Your task to perform on an android device: Open Chrome and go to settings Image 0: 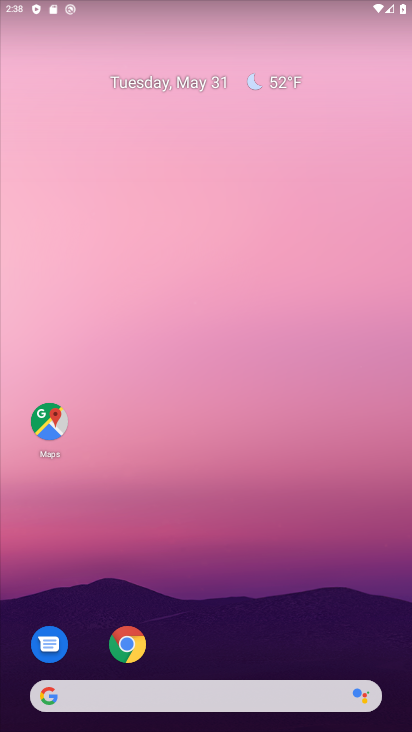
Step 0: click (135, 639)
Your task to perform on an android device: Open Chrome and go to settings Image 1: 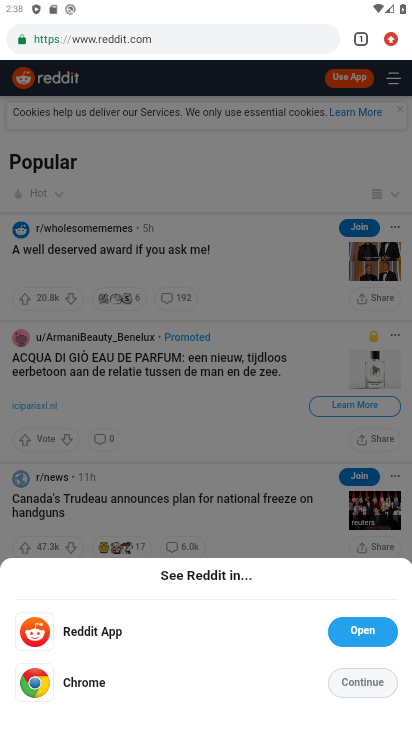
Step 1: click (401, 75)
Your task to perform on an android device: Open Chrome and go to settings Image 2: 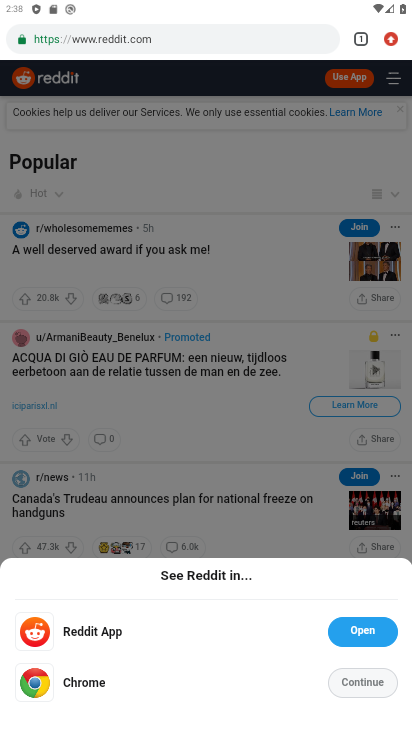
Step 2: click (392, 35)
Your task to perform on an android device: Open Chrome and go to settings Image 3: 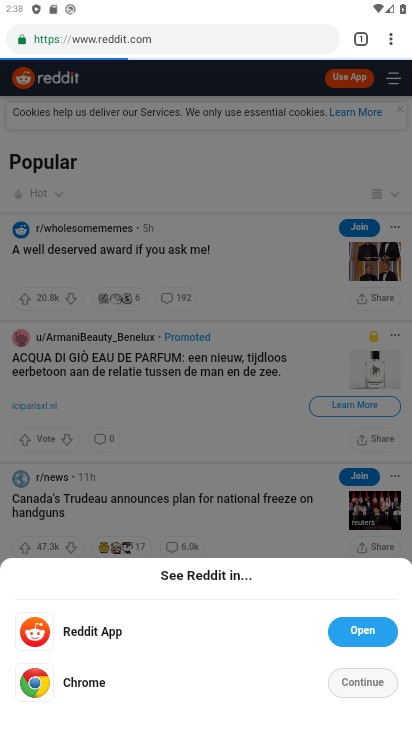
Step 3: click (390, 38)
Your task to perform on an android device: Open Chrome and go to settings Image 4: 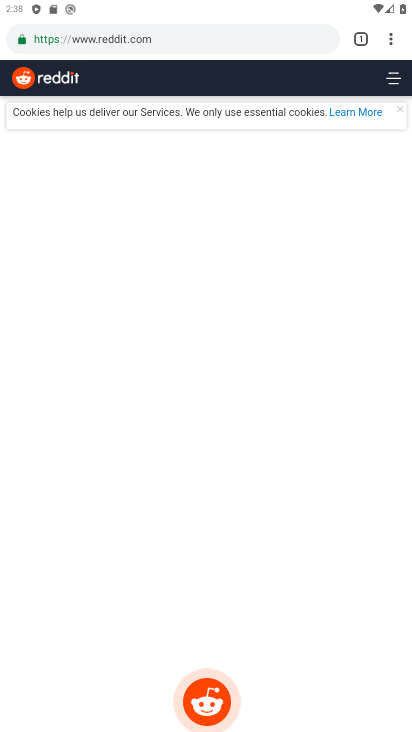
Step 4: task complete